Your task to perform on an android device: see sites visited before in the chrome app Image 0: 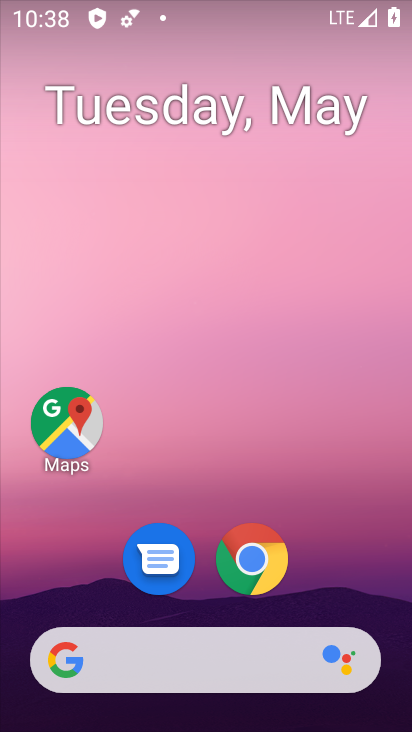
Step 0: drag from (378, 547) to (343, 177)
Your task to perform on an android device: see sites visited before in the chrome app Image 1: 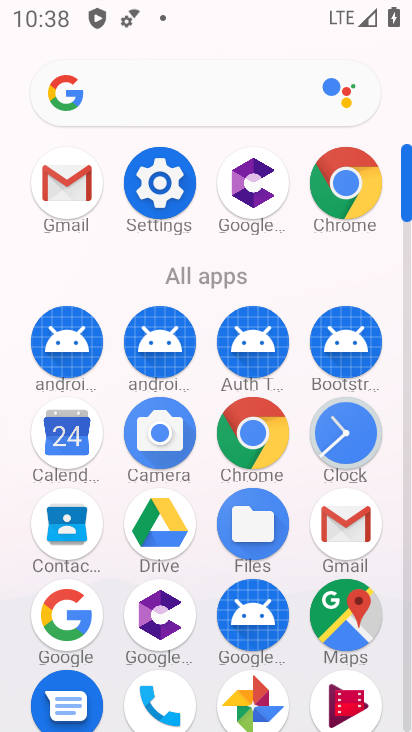
Step 1: click (278, 428)
Your task to perform on an android device: see sites visited before in the chrome app Image 2: 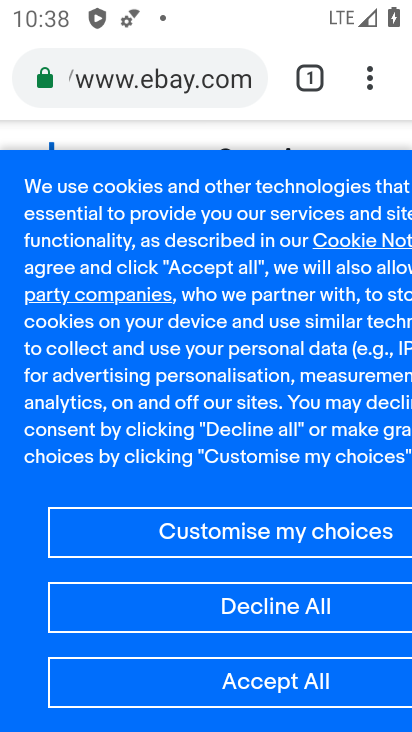
Step 2: task complete